Your task to perform on an android device: manage bookmarks in the chrome app Image 0: 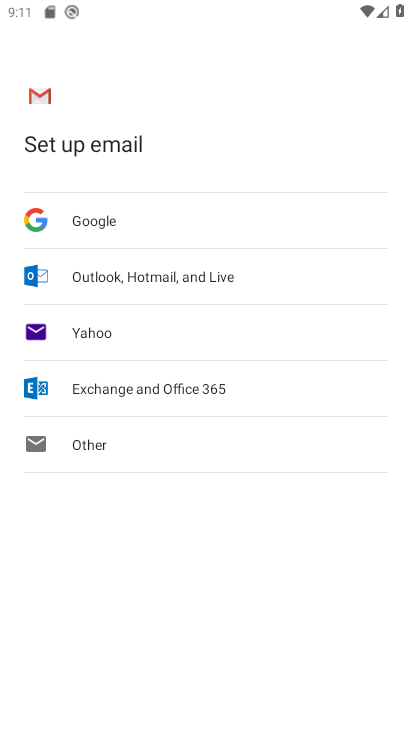
Step 0: press home button
Your task to perform on an android device: manage bookmarks in the chrome app Image 1: 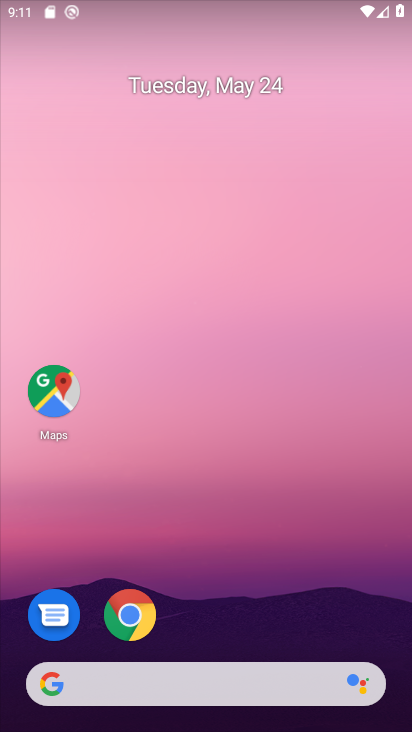
Step 1: drag from (346, 634) to (341, 257)
Your task to perform on an android device: manage bookmarks in the chrome app Image 2: 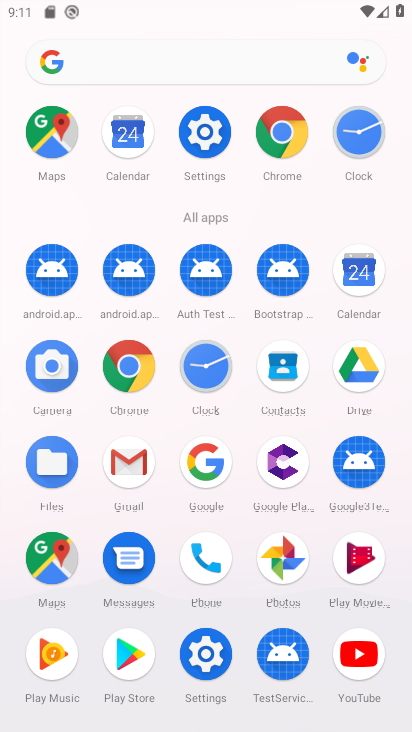
Step 2: click (146, 377)
Your task to perform on an android device: manage bookmarks in the chrome app Image 3: 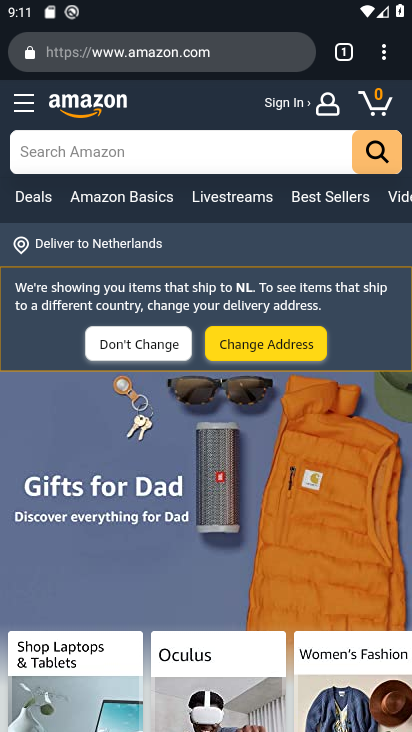
Step 3: click (386, 55)
Your task to perform on an android device: manage bookmarks in the chrome app Image 4: 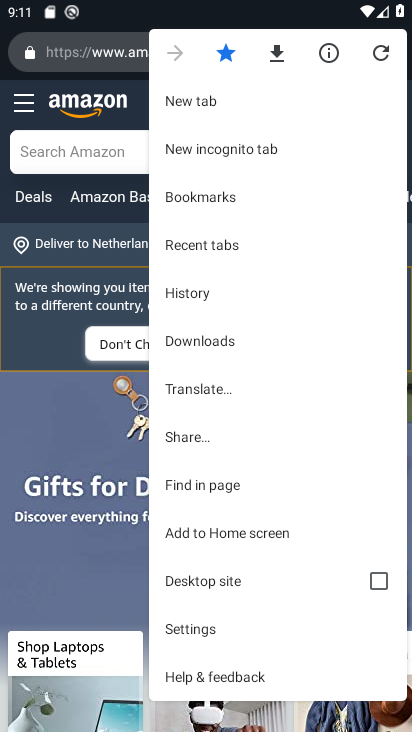
Step 4: click (280, 200)
Your task to perform on an android device: manage bookmarks in the chrome app Image 5: 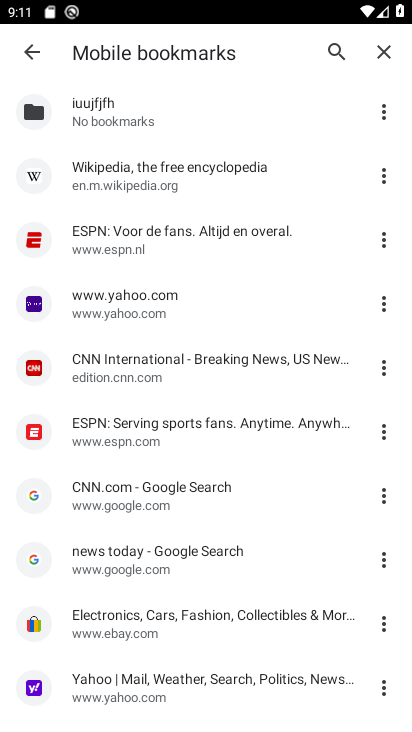
Step 5: click (381, 118)
Your task to perform on an android device: manage bookmarks in the chrome app Image 6: 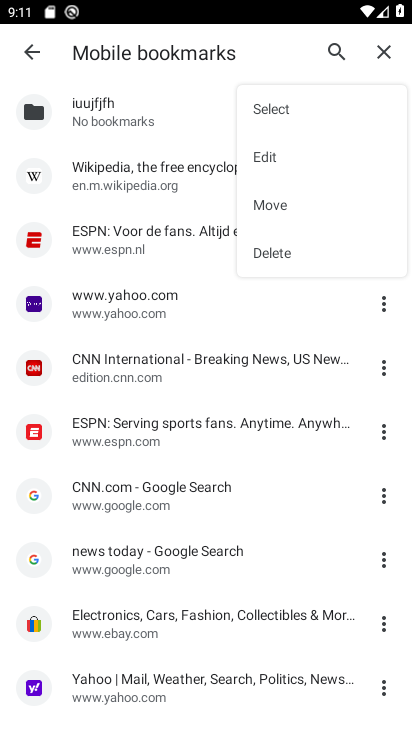
Step 6: click (294, 156)
Your task to perform on an android device: manage bookmarks in the chrome app Image 7: 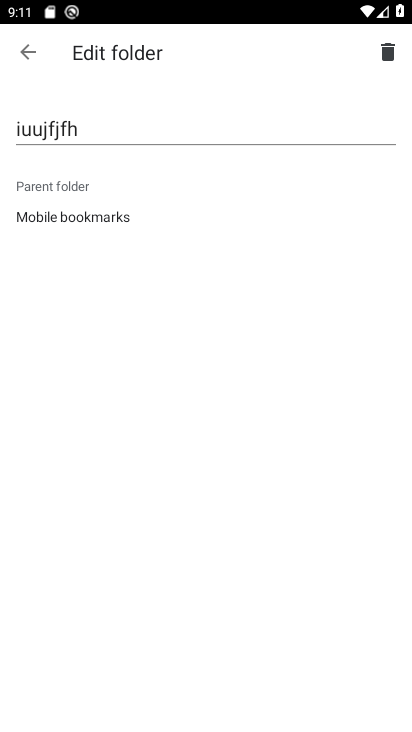
Step 7: click (168, 133)
Your task to perform on an android device: manage bookmarks in the chrome app Image 8: 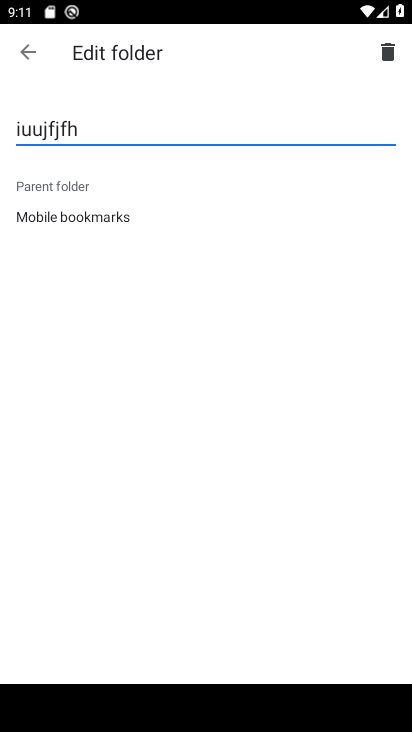
Step 8: type "hhhh"
Your task to perform on an android device: manage bookmarks in the chrome app Image 9: 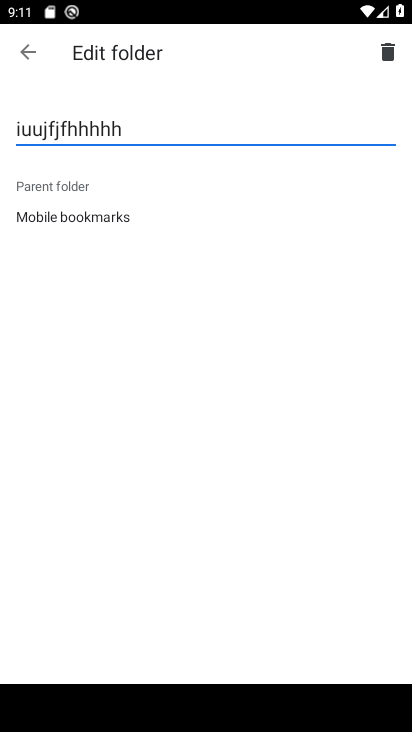
Step 9: click (30, 56)
Your task to perform on an android device: manage bookmarks in the chrome app Image 10: 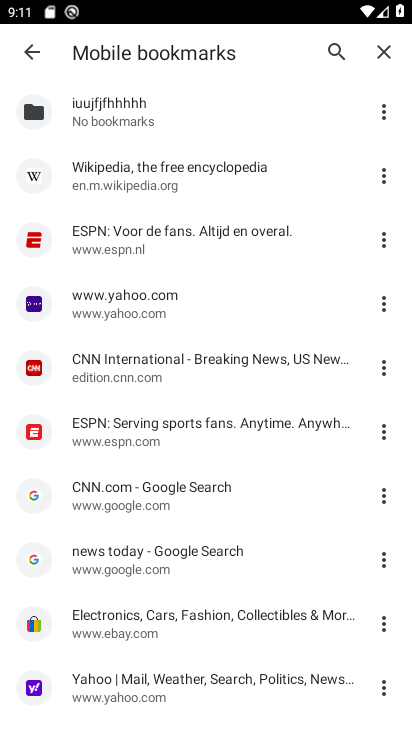
Step 10: task complete